Your task to perform on an android device: Open Youtube and go to the subscriptions tab Image 0: 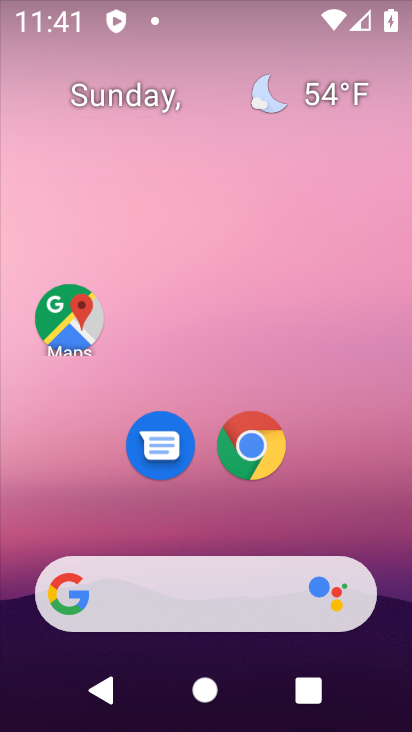
Step 0: drag from (364, 450) to (365, 84)
Your task to perform on an android device: Open Youtube and go to the subscriptions tab Image 1: 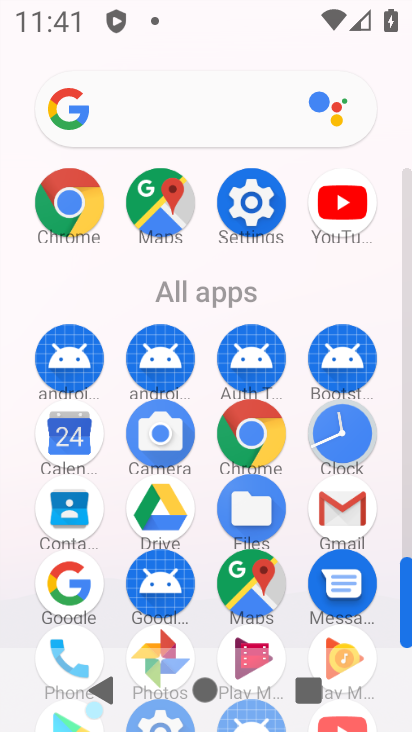
Step 1: click (344, 223)
Your task to perform on an android device: Open Youtube and go to the subscriptions tab Image 2: 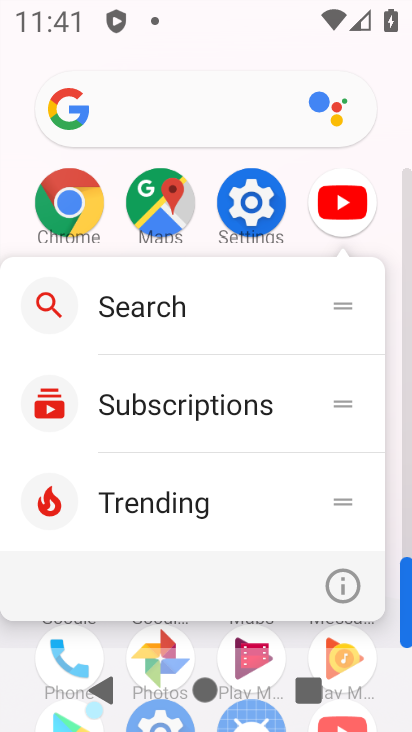
Step 2: click (341, 227)
Your task to perform on an android device: Open Youtube and go to the subscriptions tab Image 3: 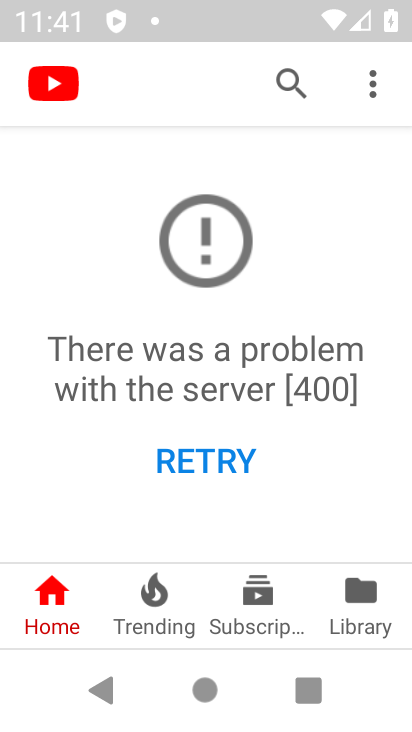
Step 3: click (260, 601)
Your task to perform on an android device: Open Youtube and go to the subscriptions tab Image 4: 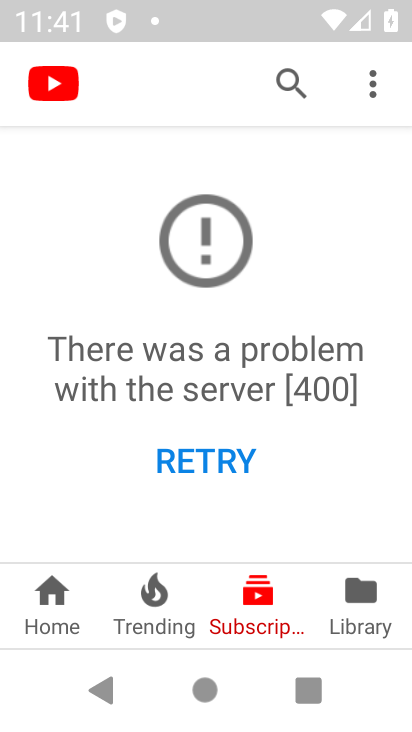
Step 4: task complete